Your task to perform on an android device: turn smart compose on in the gmail app Image 0: 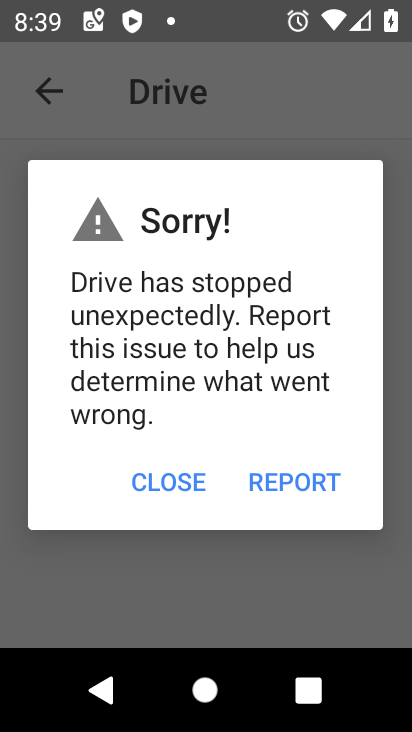
Step 0: press home button
Your task to perform on an android device: turn smart compose on in the gmail app Image 1: 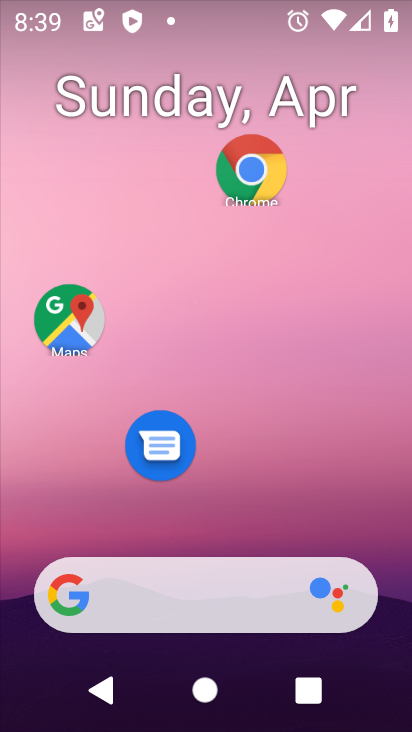
Step 1: drag from (260, 417) to (258, 17)
Your task to perform on an android device: turn smart compose on in the gmail app Image 2: 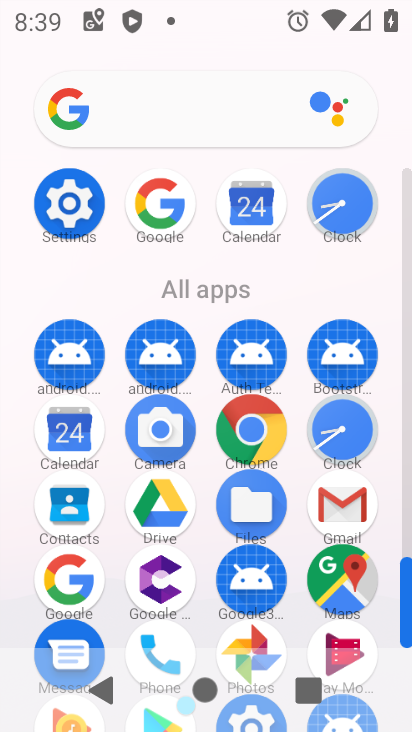
Step 2: click (337, 500)
Your task to perform on an android device: turn smart compose on in the gmail app Image 3: 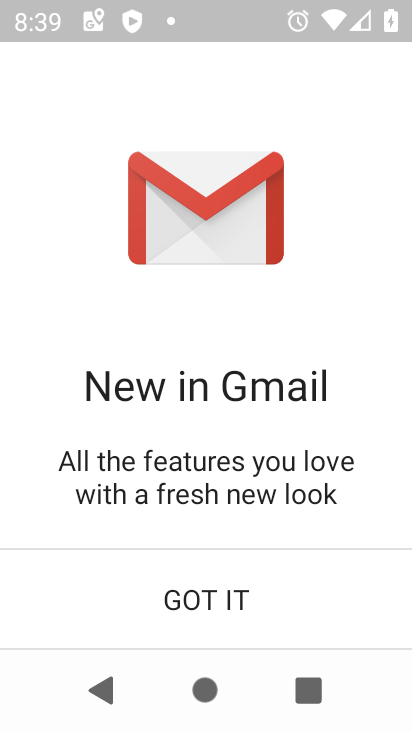
Step 3: click (199, 598)
Your task to perform on an android device: turn smart compose on in the gmail app Image 4: 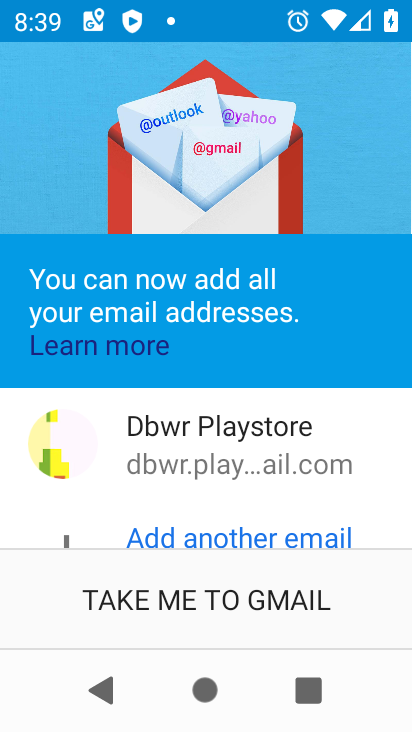
Step 4: click (153, 599)
Your task to perform on an android device: turn smart compose on in the gmail app Image 5: 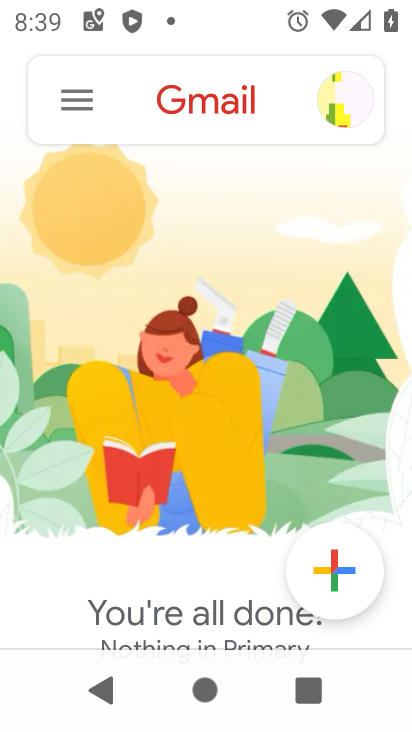
Step 5: click (75, 101)
Your task to perform on an android device: turn smart compose on in the gmail app Image 6: 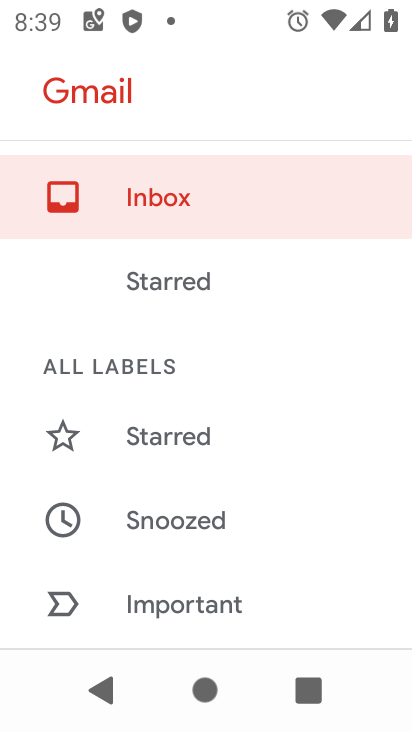
Step 6: drag from (235, 506) to (271, 119)
Your task to perform on an android device: turn smart compose on in the gmail app Image 7: 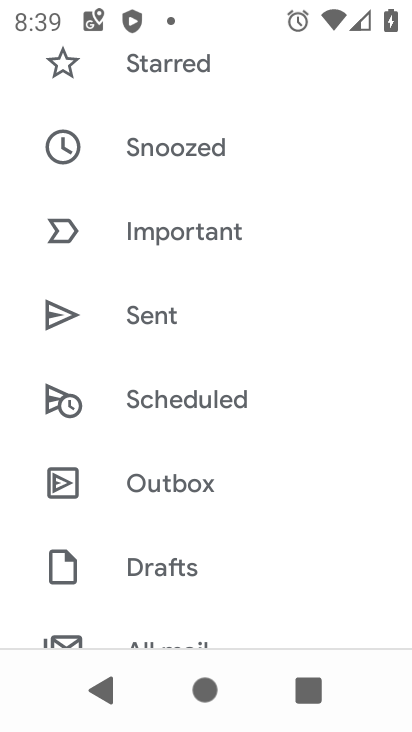
Step 7: drag from (244, 465) to (223, 101)
Your task to perform on an android device: turn smart compose on in the gmail app Image 8: 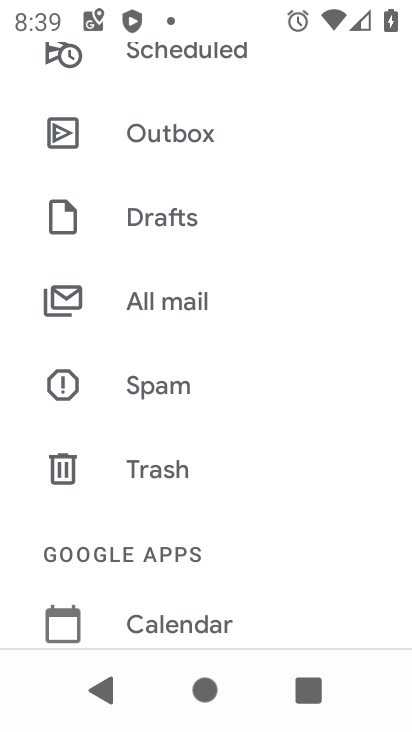
Step 8: drag from (214, 555) to (228, 175)
Your task to perform on an android device: turn smart compose on in the gmail app Image 9: 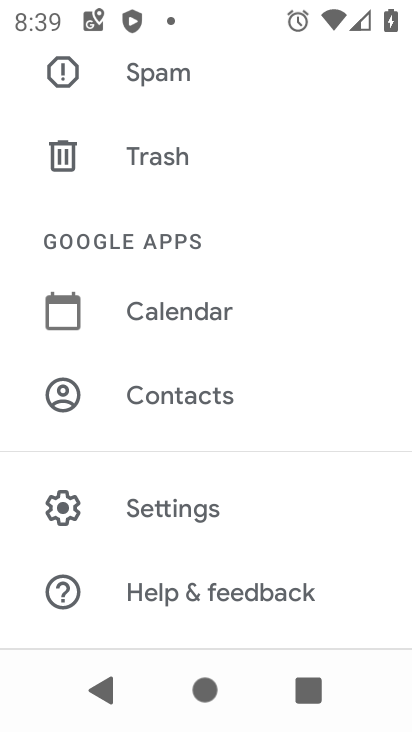
Step 9: click (185, 498)
Your task to perform on an android device: turn smart compose on in the gmail app Image 10: 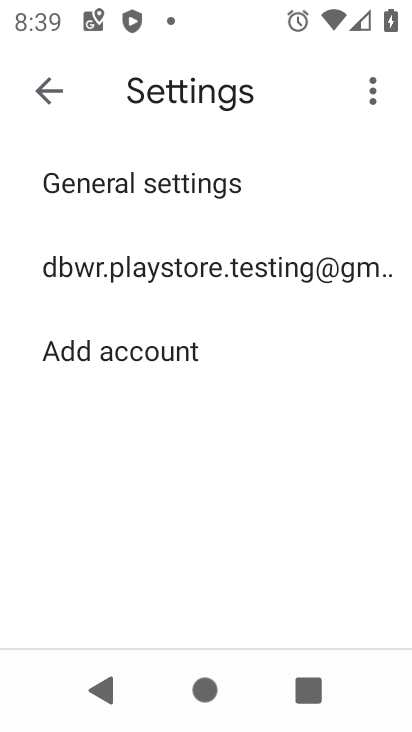
Step 10: click (71, 266)
Your task to perform on an android device: turn smart compose on in the gmail app Image 11: 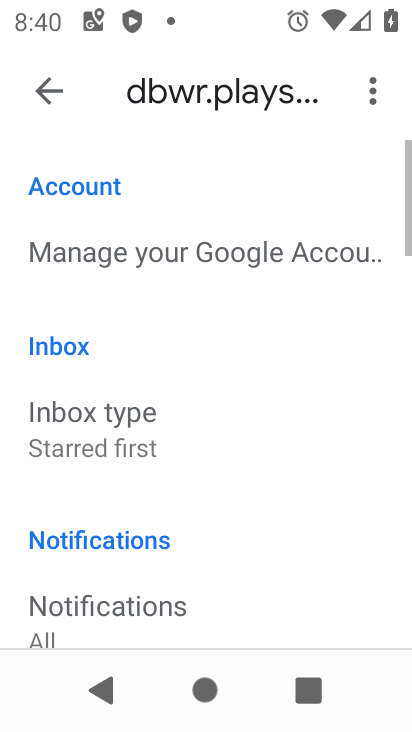
Step 11: task complete